Your task to perform on an android device: Open the Play Movies app and select the watchlist tab. Image 0: 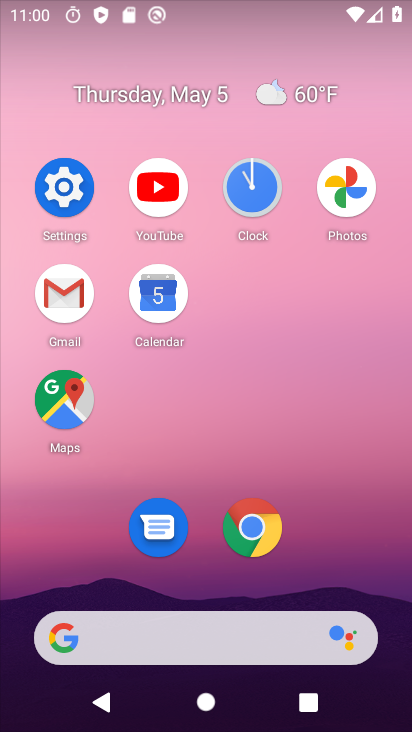
Step 0: drag from (305, 581) to (279, 111)
Your task to perform on an android device: Open the Play Movies app and select the watchlist tab. Image 1: 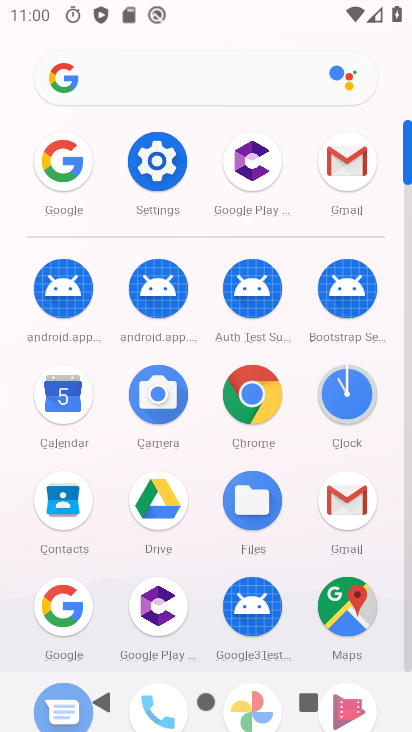
Step 1: drag from (288, 575) to (259, 152)
Your task to perform on an android device: Open the Play Movies app and select the watchlist tab. Image 2: 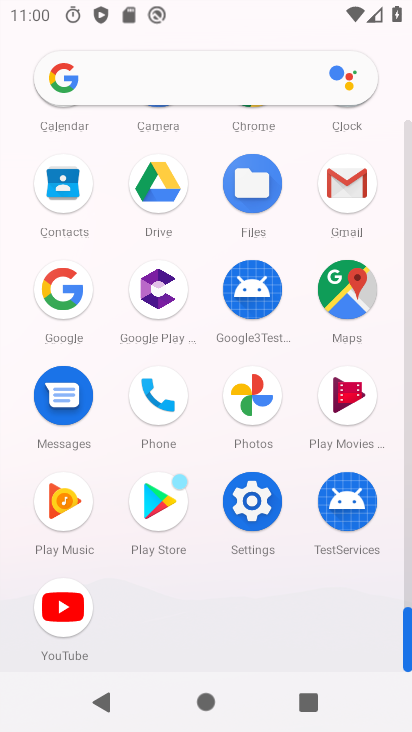
Step 2: click (332, 415)
Your task to perform on an android device: Open the Play Movies app and select the watchlist tab. Image 3: 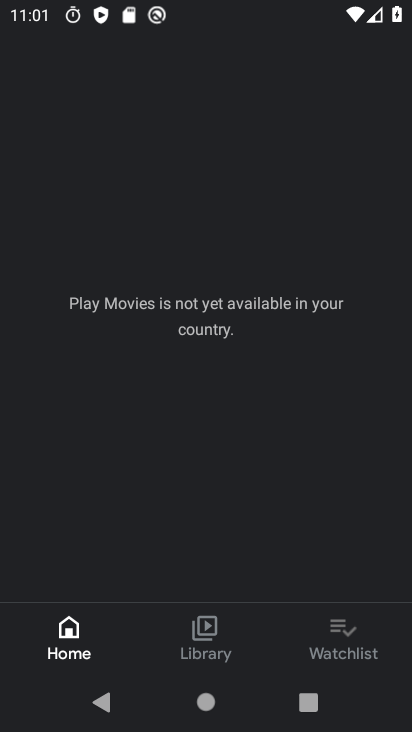
Step 3: click (347, 631)
Your task to perform on an android device: Open the Play Movies app and select the watchlist tab. Image 4: 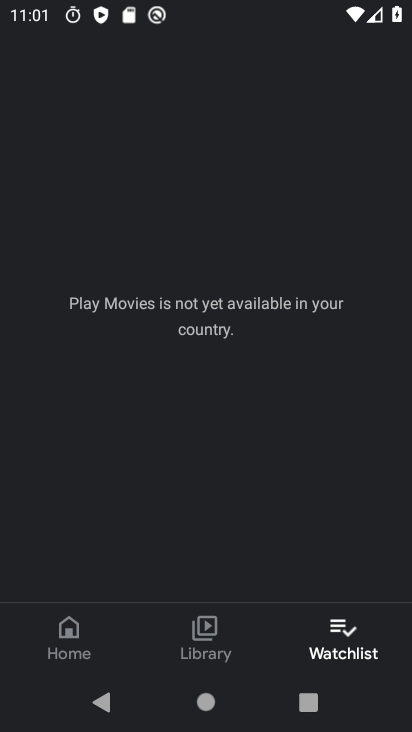
Step 4: task complete